Your task to perform on an android device: open a bookmark in the chrome app Image 0: 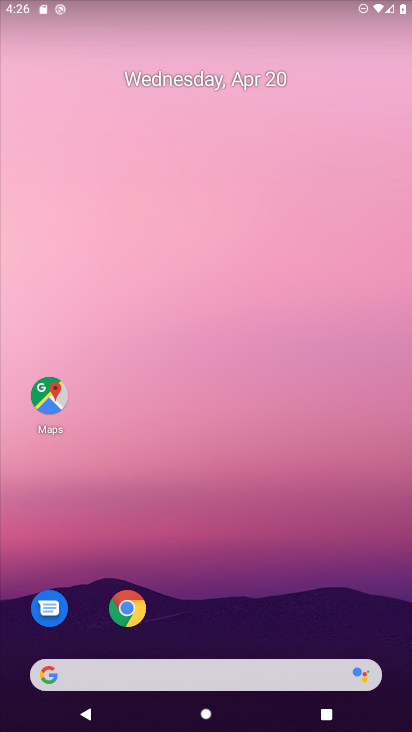
Step 0: drag from (345, 528) to (345, 241)
Your task to perform on an android device: open a bookmark in the chrome app Image 1: 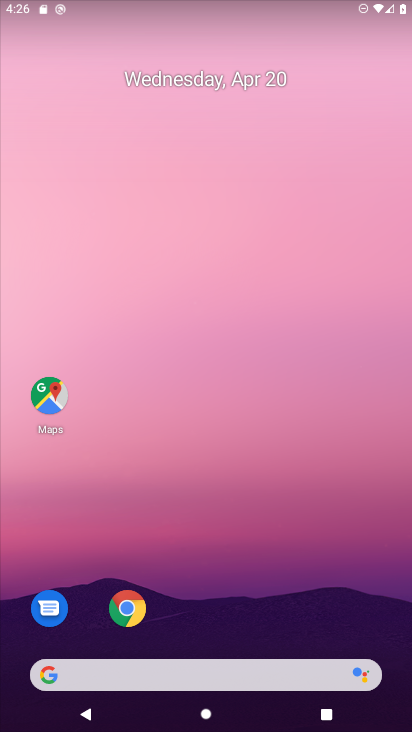
Step 1: drag from (304, 580) to (284, 276)
Your task to perform on an android device: open a bookmark in the chrome app Image 2: 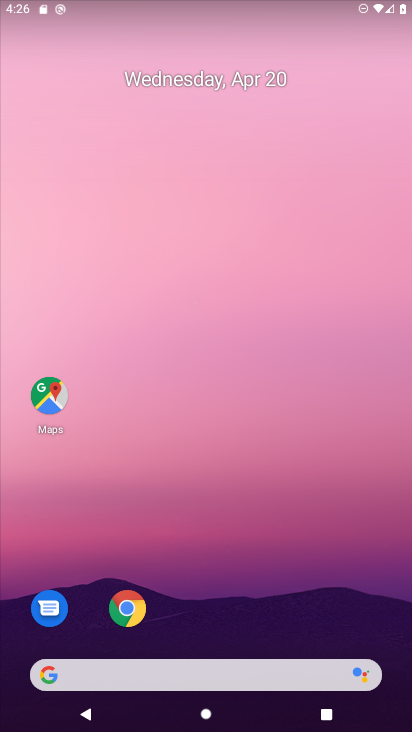
Step 2: drag from (333, 605) to (326, 141)
Your task to perform on an android device: open a bookmark in the chrome app Image 3: 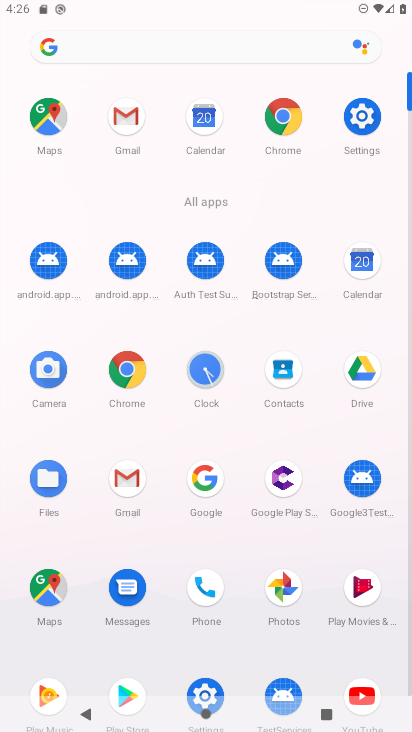
Step 3: click (292, 132)
Your task to perform on an android device: open a bookmark in the chrome app Image 4: 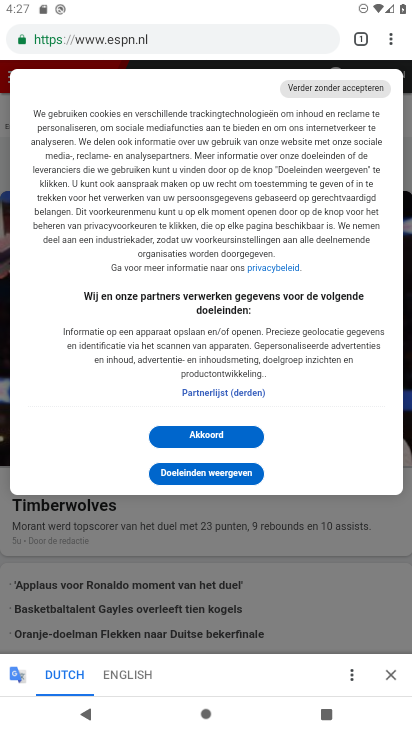
Step 4: task complete